Your task to perform on an android device: turn on translation in the chrome app Image 0: 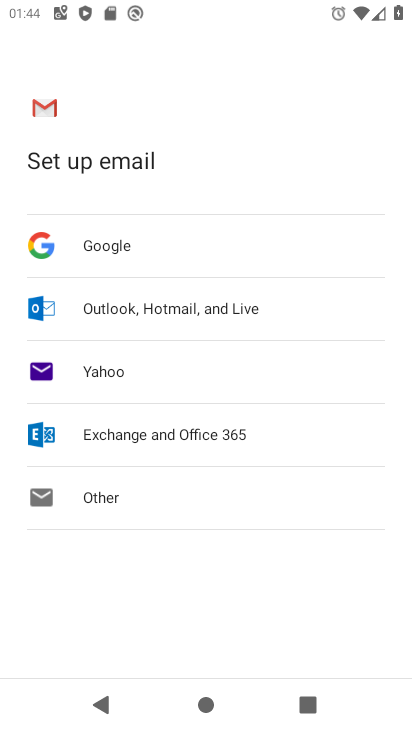
Step 0: press home button
Your task to perform on an android device: turn on translation in the chrome app Image 1: 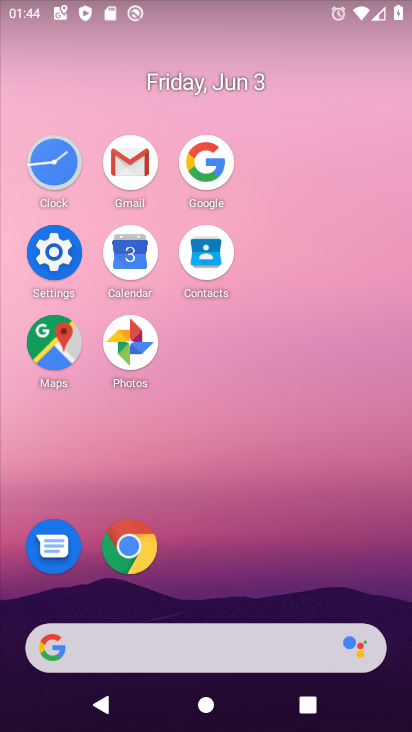
Step 1: click (145, 544)
Your task to perform on an android device: turn on translation in the chrome app Image 2: 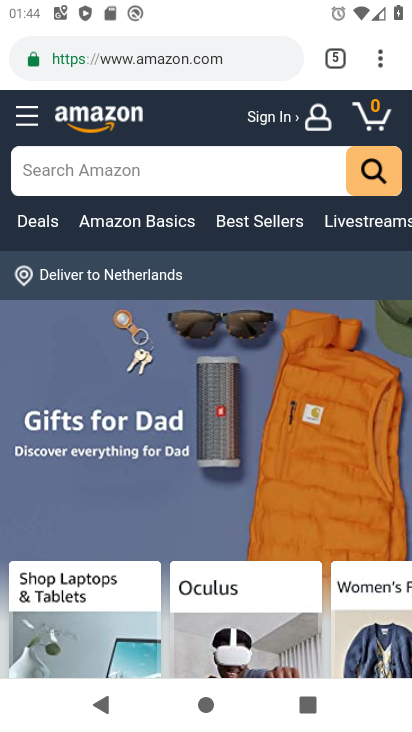
Step 2: click (386, 64)
Your task to perform on an android device: turn on translation in the chrome app Image 3: 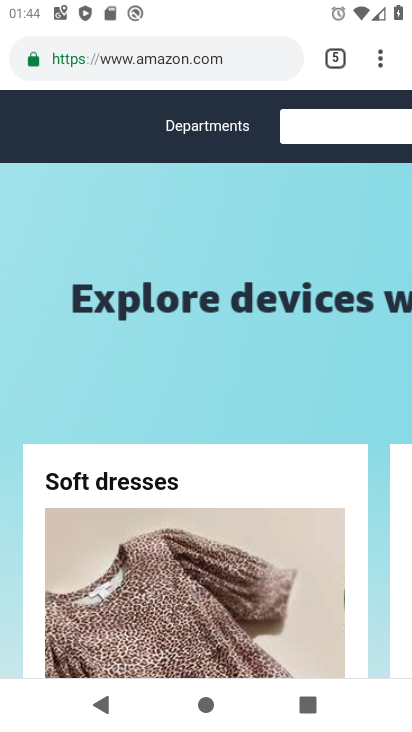
Step 3: click (381, 56)
Your task to perform on an android device: turn on translation in the chrome app Image 4: 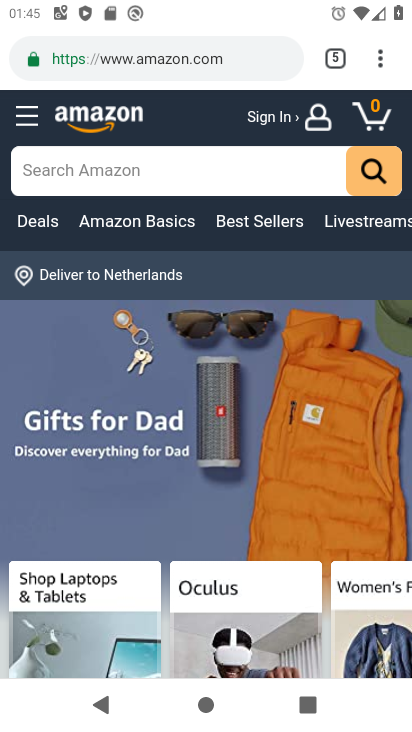
Step 4: click (405, 76)
Your task to perform on an android device: turn on translation in the chrome app Image 5: 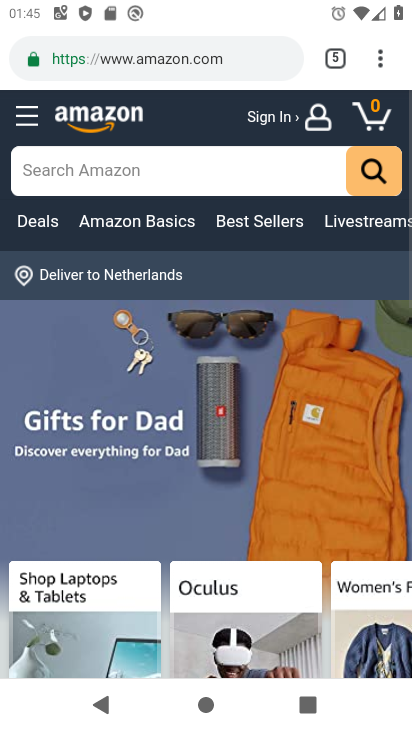
Step 5: click (387, 67)
Your task to perform on an android device: turn on translation in the chrome app Image 6: 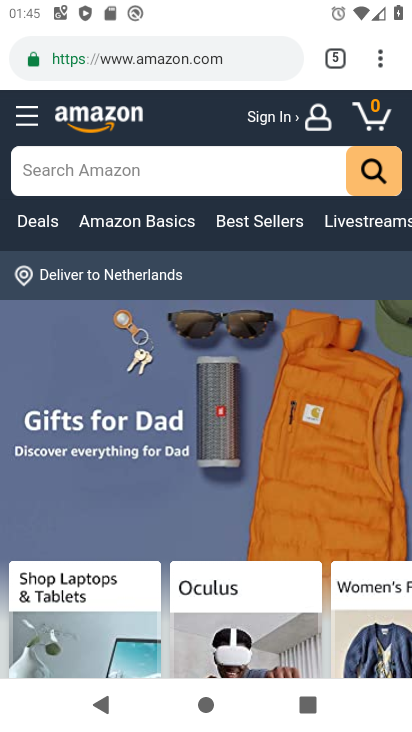
Step 6: click (375, 57)
Your task to perform on an android device: turn on translation in the chrome app Image 7: 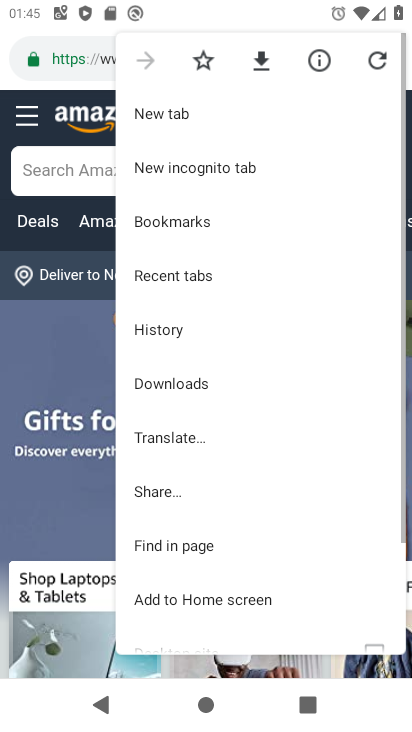
Step 7: drag from (219, 428) to (205, 85)
Your task to perform on an android device: turn on translation in the chrome app Image 8: 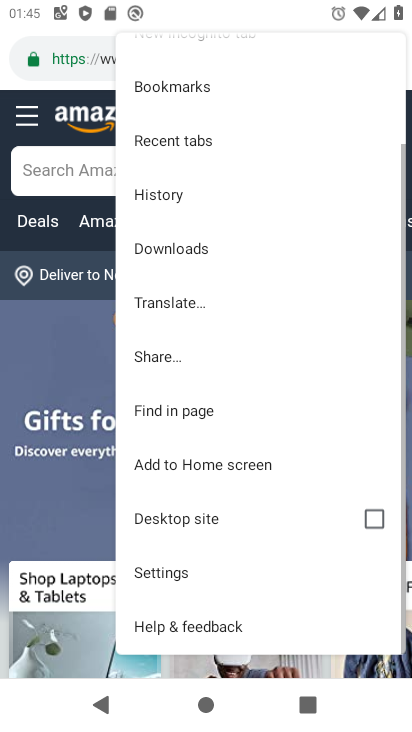
Step 8: click (184, 557)
Your task to perform on an android device: turn on translation in the chrome app Image 9: 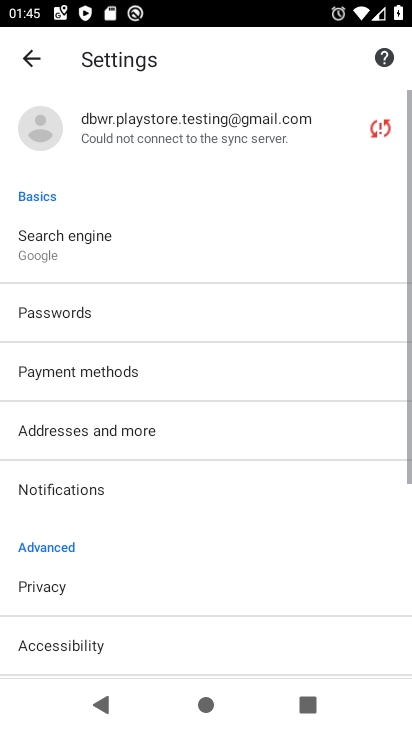
Step 9: drag from (171, 540) to (170, 202)
Your task to perform on an android device: turn on translation in the chrome app Image 10: 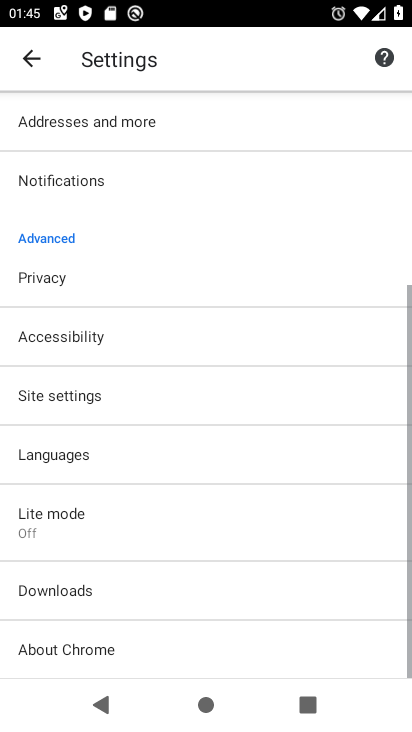
Step 10: click (116, 452)
Your task to perform on an android device: turn on translation in the chrome app Image 11: 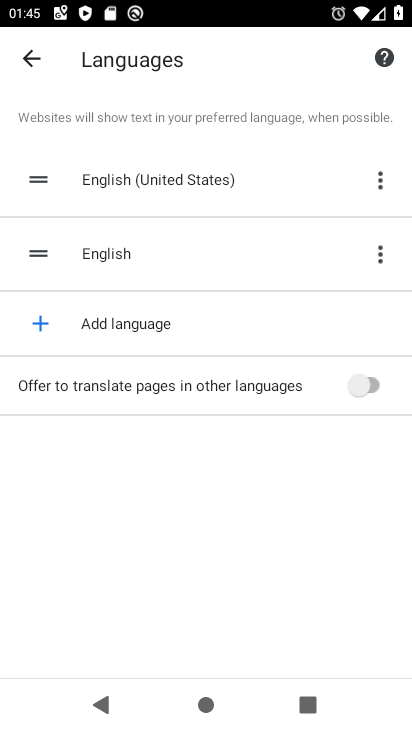
Step 11: click (362, 388)
Your task to perform on an android device: turn on translation in the chrome app Image 12: 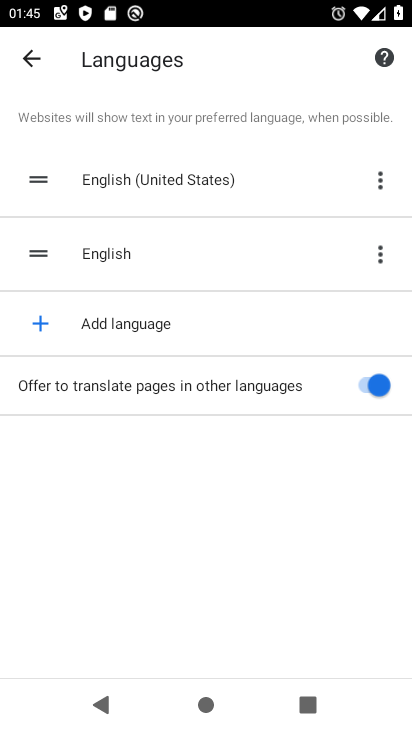
Step 12: task complete